Your task to perform on an android device: change the clock display to digital Image 0: 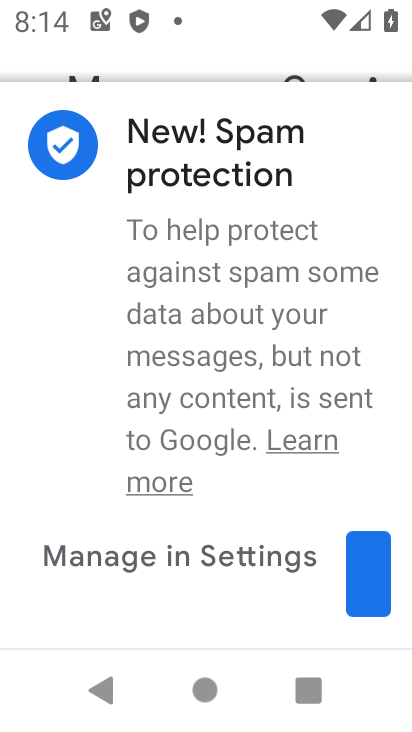
Step 0: press home button
Your task to perform on an android device: change the clock display to digital Image 1: 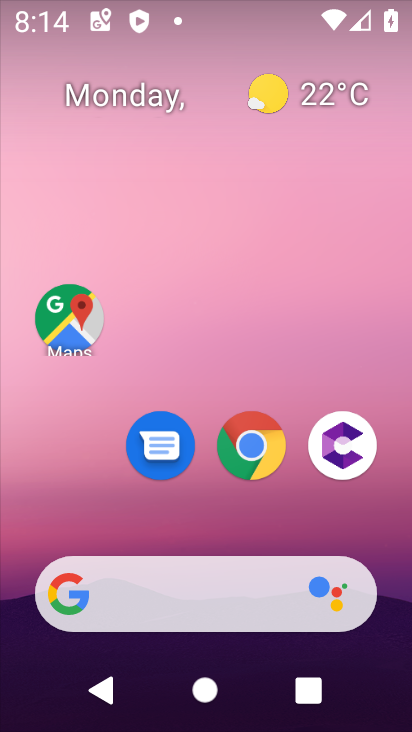
Step 1: drag from (279, 354) to (186, 88)
Your task to perform on an android device: change the clock display to digital Image 2: 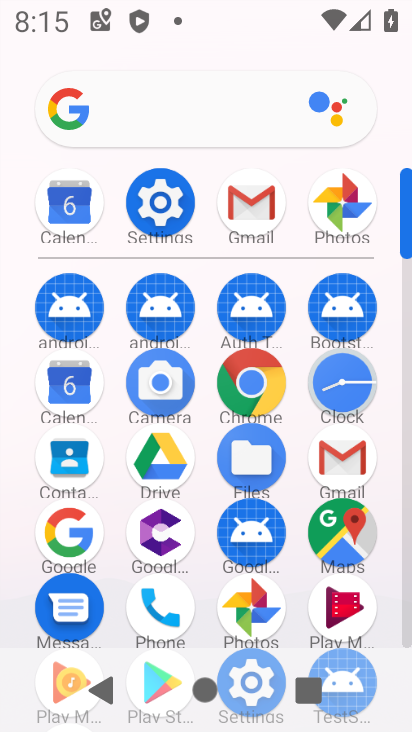
Step 2: click (347, 395)
Your task to perform on an android device: change the clock display to digital Image 3: 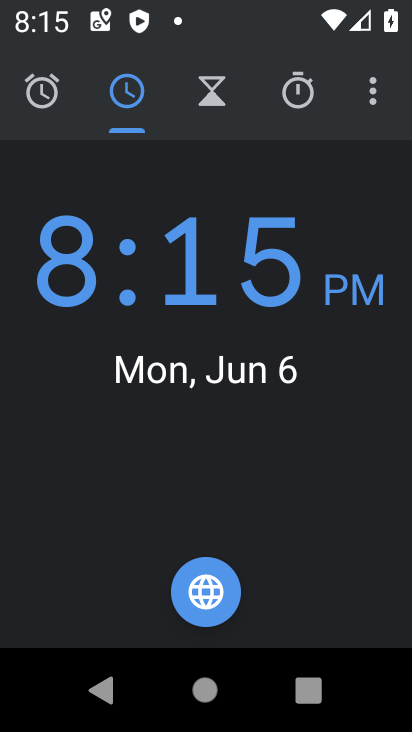
Step 3: click (373, 99)
Your task to perform on an android device: change the clock display to digital Image 4: 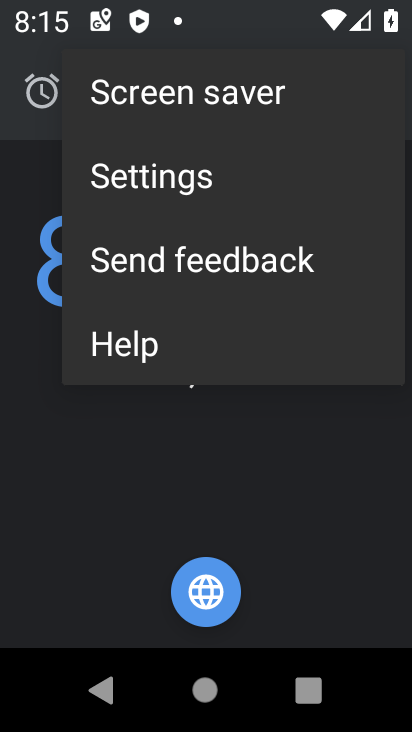
Step 4: click (203, 177)
Your task to perform on an android device: change the clock display to digital Image 5: 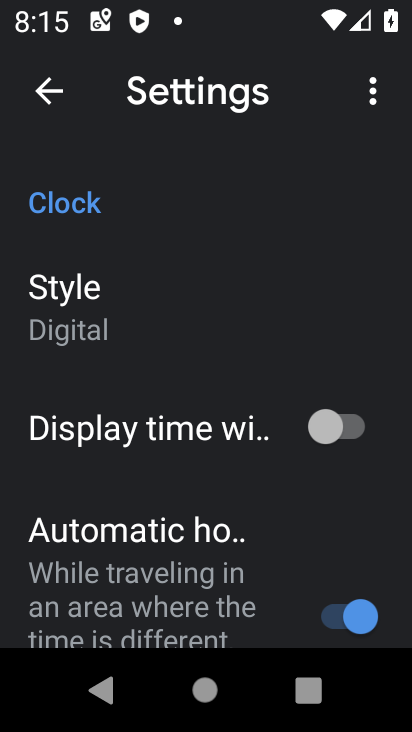
Step 5: click (138, 310)
Your task to perform on an android device: change the clock display to digital Image 6: 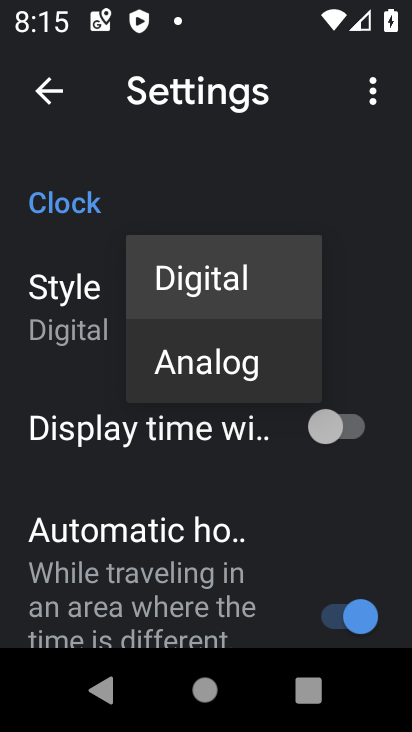
Step 6: task complete